Your task to perform on an android device: Open the map Image 0: 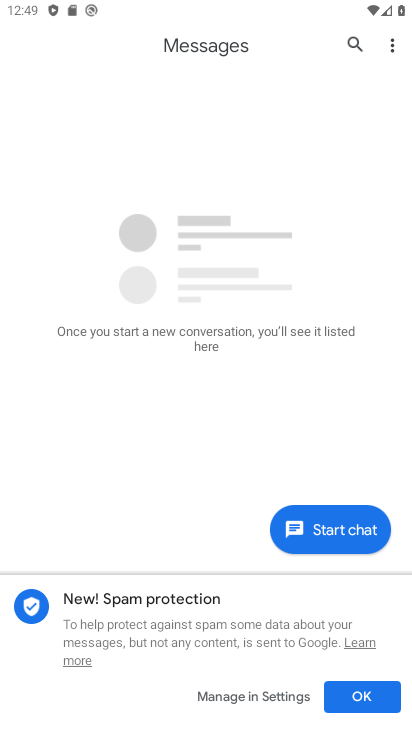
Step 0: press home button
Your task to perform on an android device: Open the map Image 1: 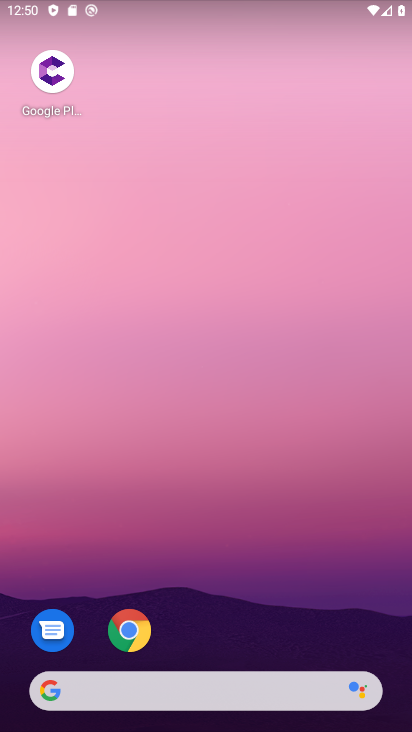
Step 1: drag from (184, 505) to (194, 409)
Your task to perform on an android device: Open the map Image 2: 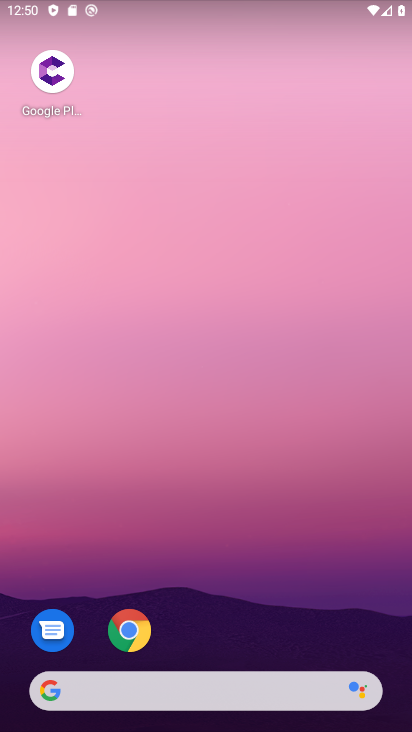
Step 2: drag from (81, 601) to (90, 564)
Your task to perform on an android device: Open the map Image 3: 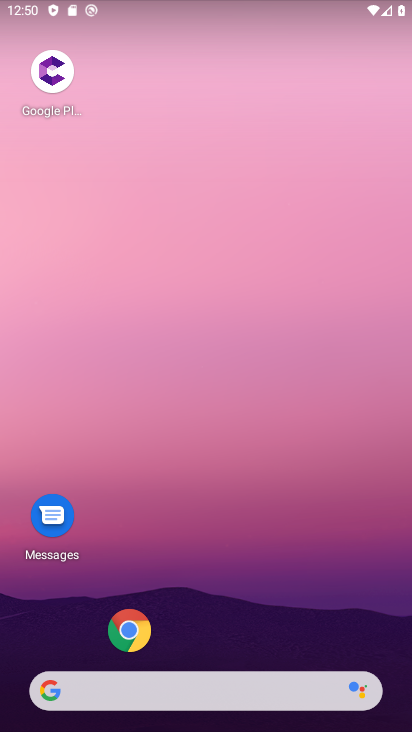
Step 3: drag from (324, 689) to (347, 106)
Your task to perform on an android device: Open the map Image 4: 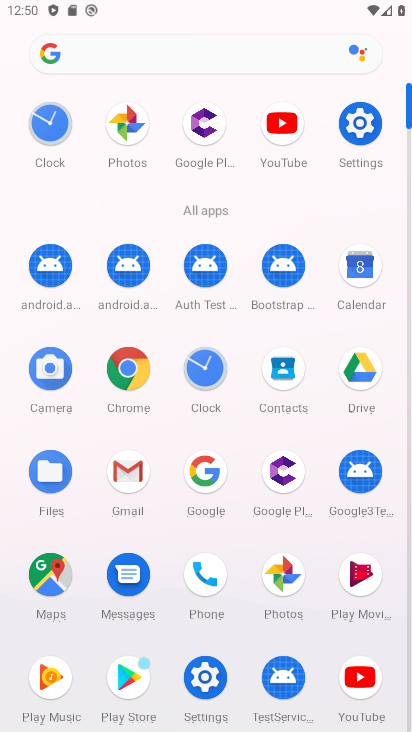
Step 4: click (69, 570)
Your task to perform on an android device: Open the map Image 5: 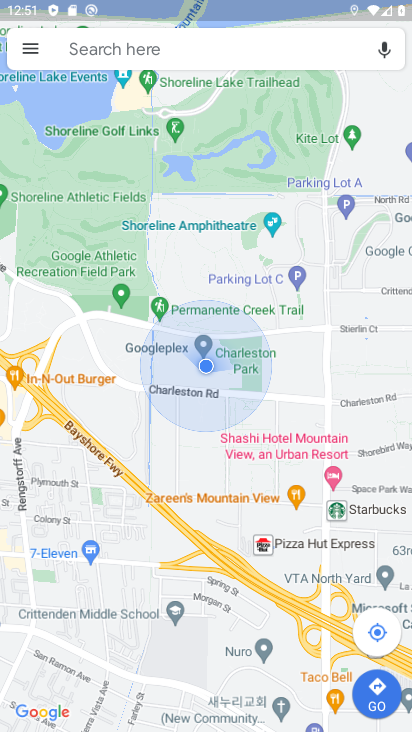
Step 5: task complete